Your task to perform on an android device: Open Yahoo.com Image 0: 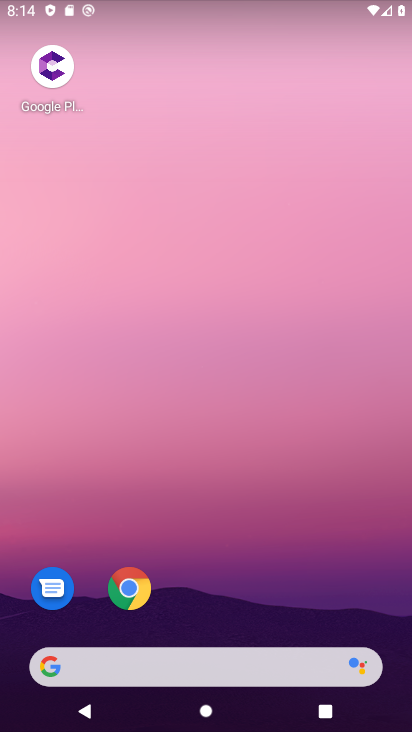
Step 0: click (117, 579)
Your task to perform on an android device: Open Yahoo.com Image 1: 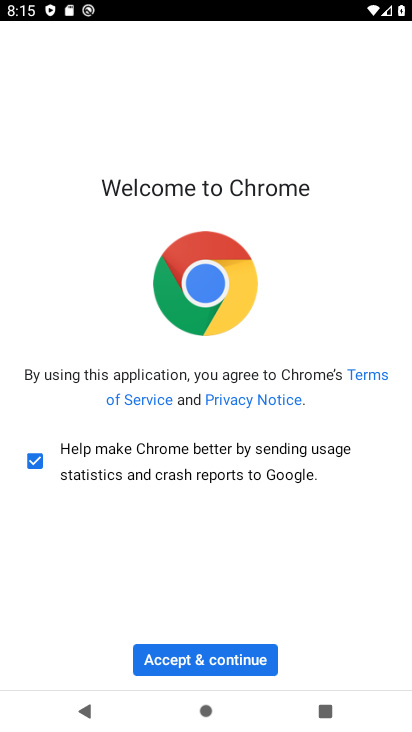
Step 1: click (159, 652)
Your task to perform on an android device: Open Yahoo.com Image 2: 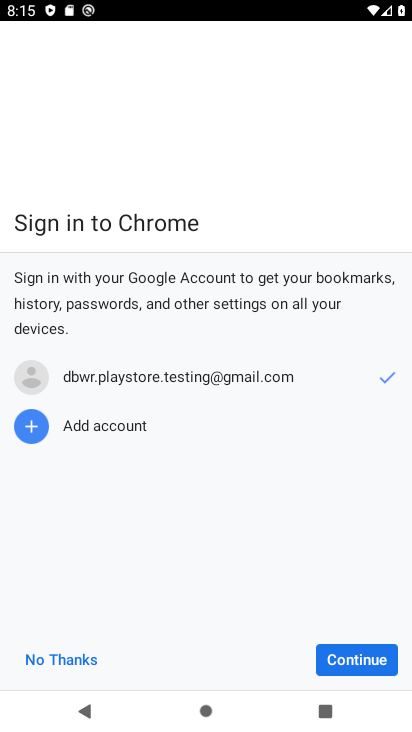
Step 2: click (371, 649)
Your task to perform on an android device: Open Yahoo.com Image 3: 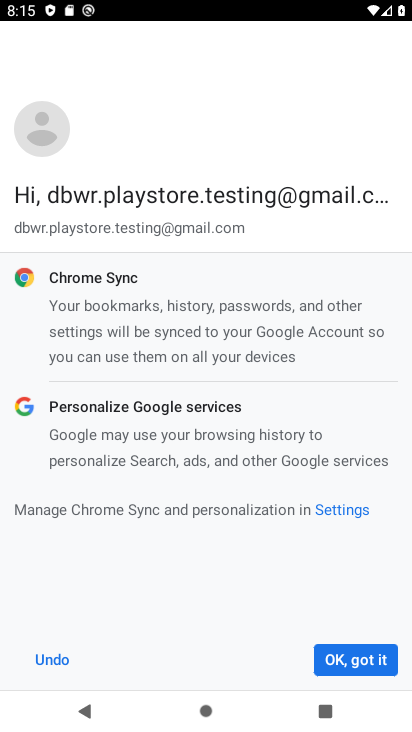
Step 3: click (340, 656)
Your task to perform on an android device: Open Yahoo.com Image 4: 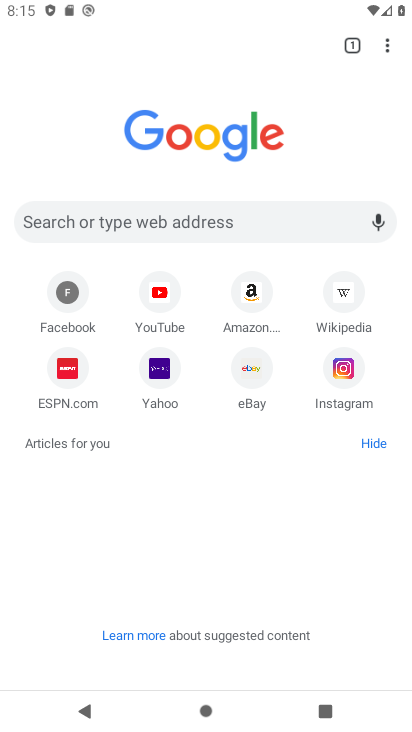
Step 4: click (153, 370)
Your task to perform on an android device: Open Yahoo.com Image 5: 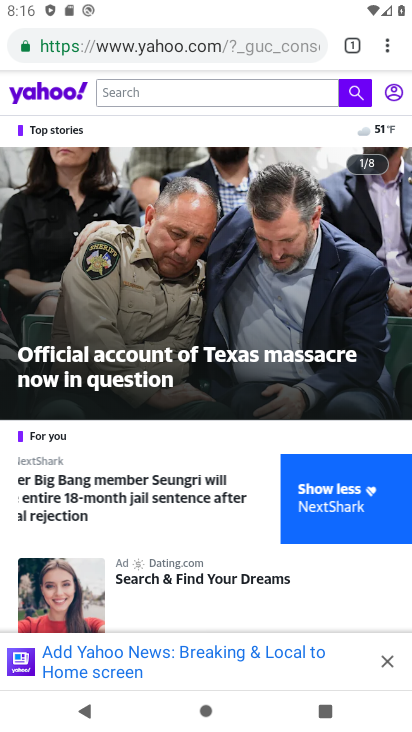
Step 5: task complete